Your task to perform on an android device: open wifi settings Image 0: 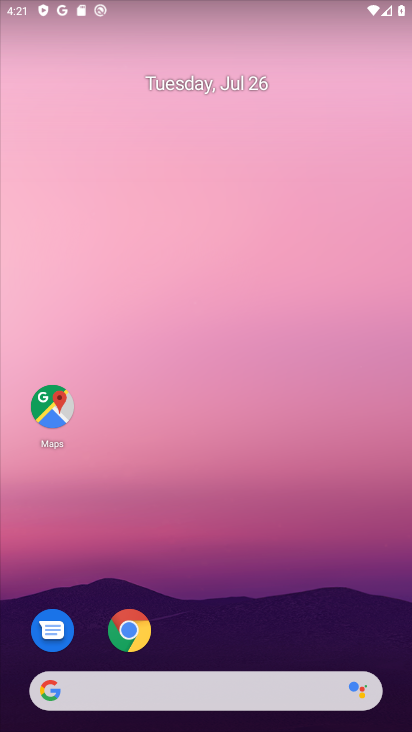
Step 0: drag from (318, 599) to (355, 102)
Your task to perform on an android device: open wifi settings Image 1: 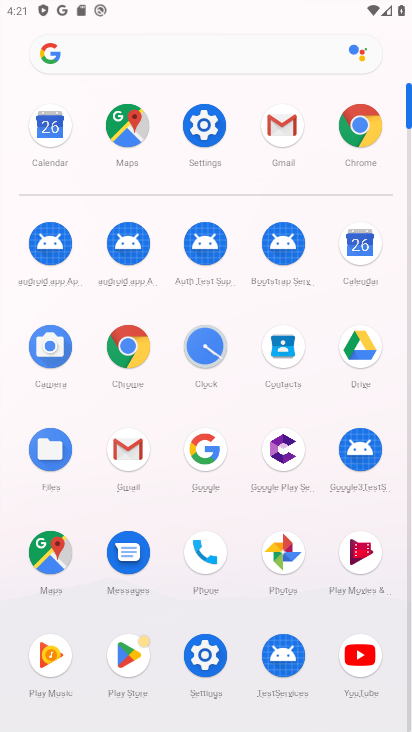
Step 1: click (203, 124)
Your task to perform on an android device: open wifi settings Image 2: 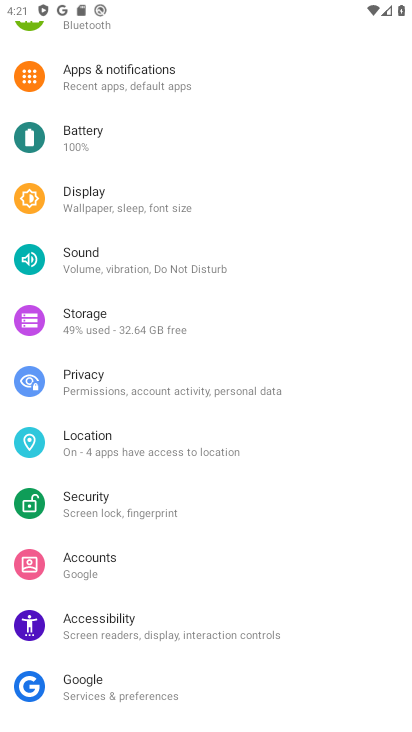
Step 2: drag from (142, 95) to (210, 540)
Your task to perform on an android device: open wifi settings Image 3: 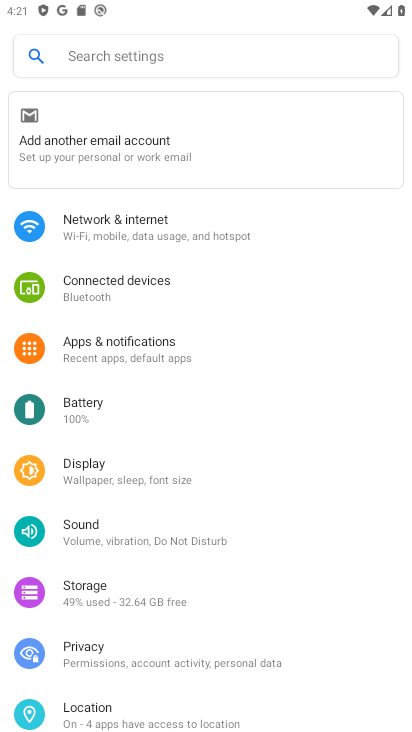
Step 3: click (129, 220)
Your task to perform on an android device: open wifi settings Image 4: 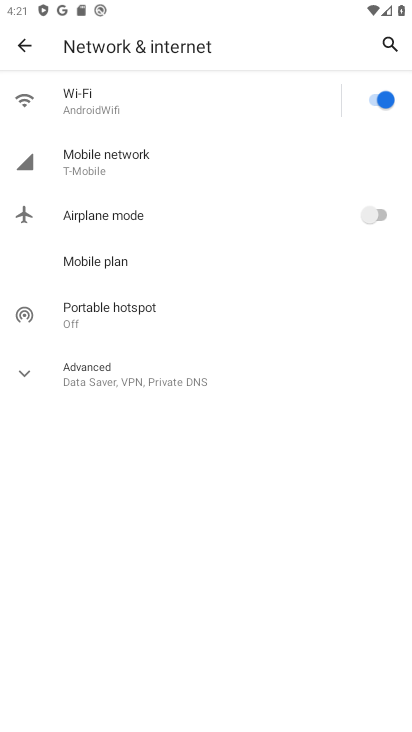
Step 4: click (195, 109)
Your task to perform on an android device: open wifi settings Image 5: 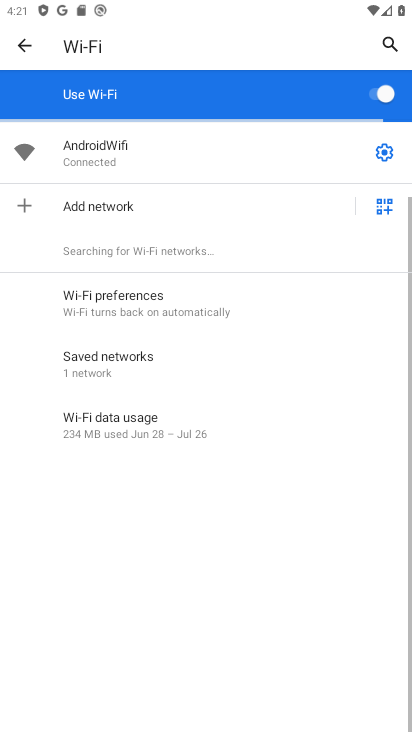
Step 5: click (379, 149)
Your task to perform on an android device: open wifi settings Image 6: 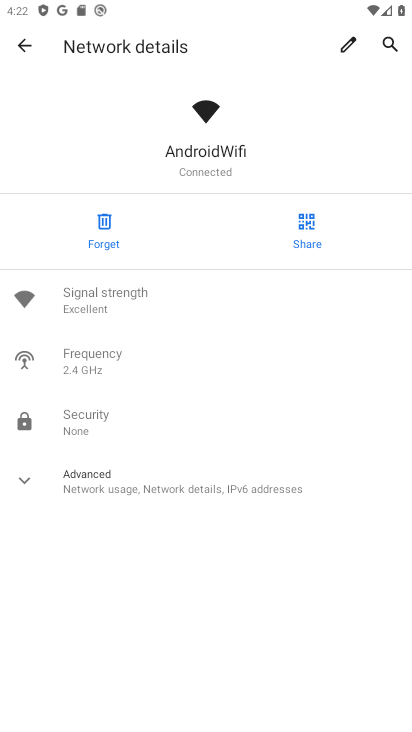
Step 6: task complete